Your task to perform on an android device: turn notification dots off Image 0: 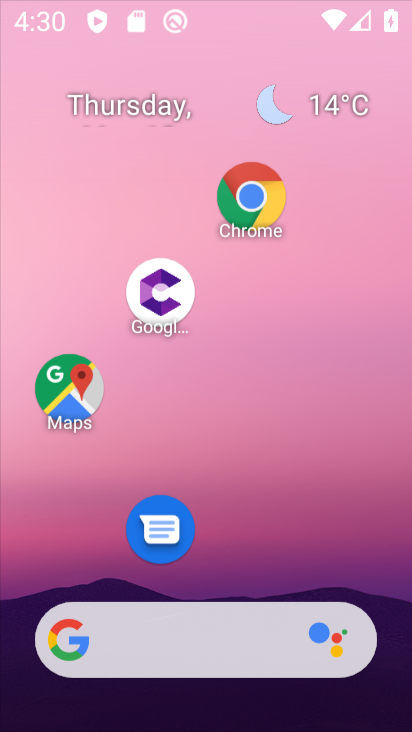
Step 0: press home button
Your task to perform on an android device: turn notification dots off Image 1: 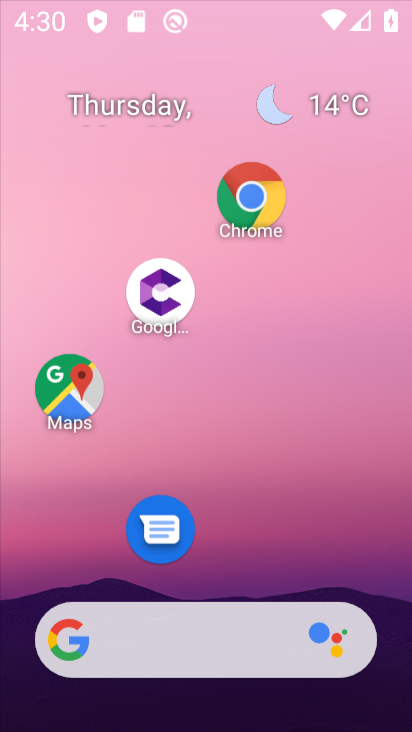
Step 1: drag from (215, 589) to (231, 183)
Your task to perform on an android device: turn notification dots off Image 2: 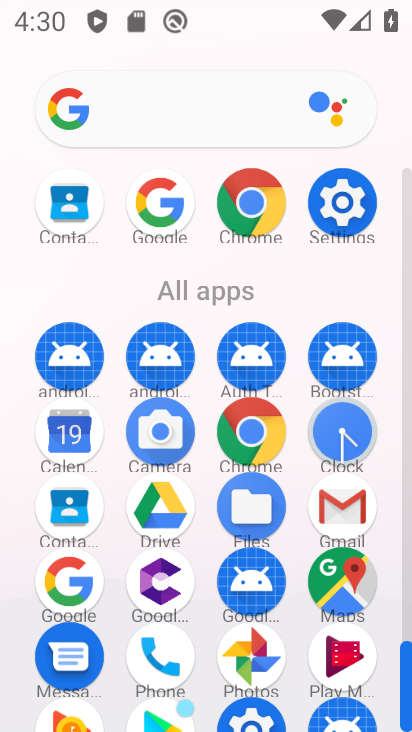
Step 2: click (344, 197)
Your task to perform on an android device: turn notification dots off Image 3: 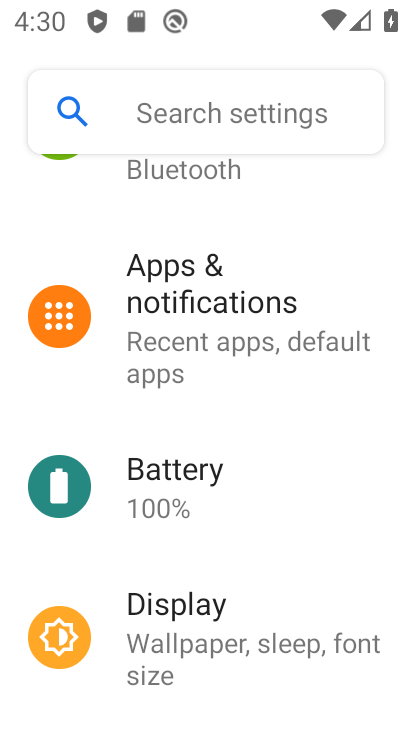
Step 3: click (213, 331)
Your task to perform on an android device: turn notification dots off Image 4: 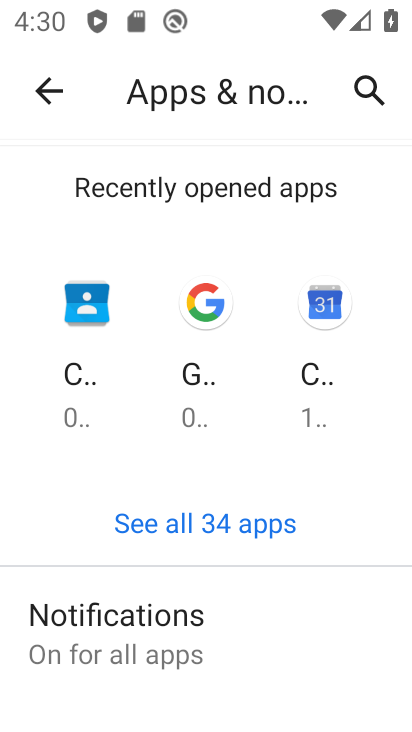
Step 4: click (233, 629)
Your task to perform on an android device: turn notification dots off Image 5: 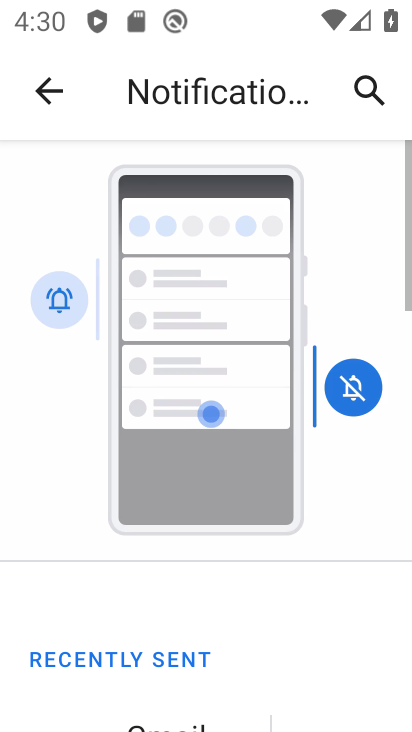
Step 5: drag from (232, 642) to (265, 237)
Your task to perform on an android device: turn notification dots off Image 6: 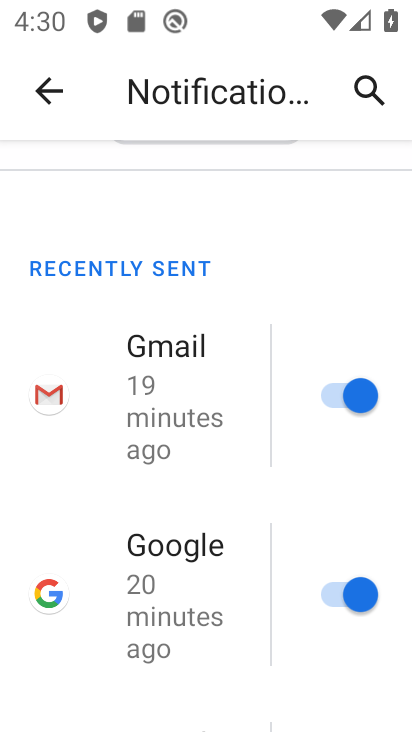
Step 6: drag from (234, 660) to (258, 303)
Your task to perform on an android device: turn notification dots off Image 7: 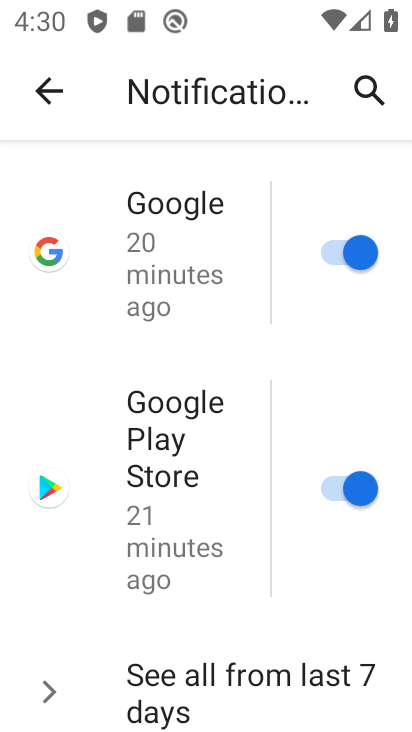
Step 7: drag from (246, 699) to (268, 360)
Your task to perform on an android device: turn notification dots off Image 8: 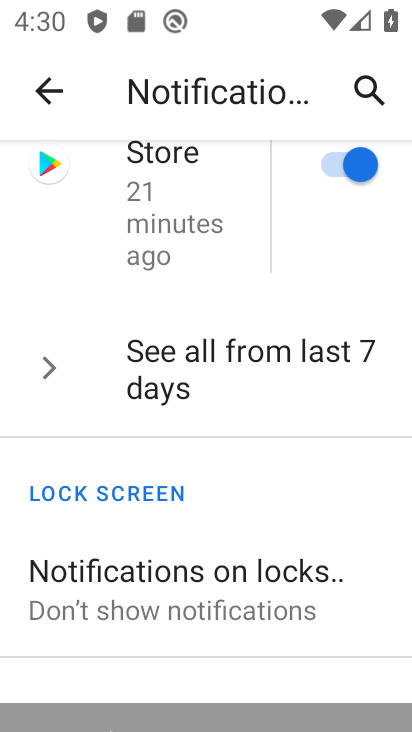
Step 8: drag from (218, 616) to (252, 414)
Your task to perform on an android device: turn notification dots off Image 9: 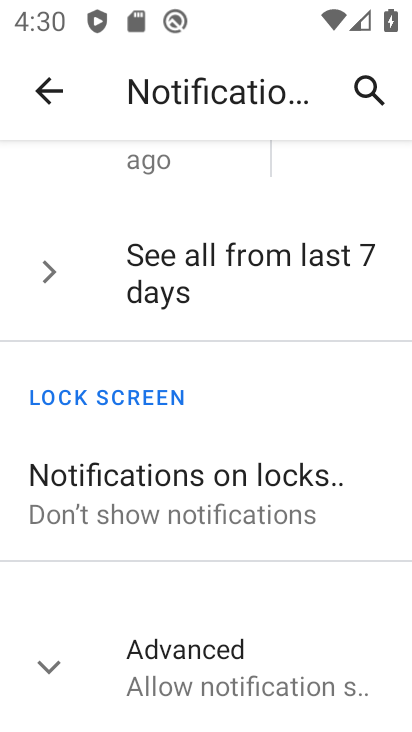
Step 9: click (177, 642)
Your task to perform on an android device: turn notification dots off Image 10: 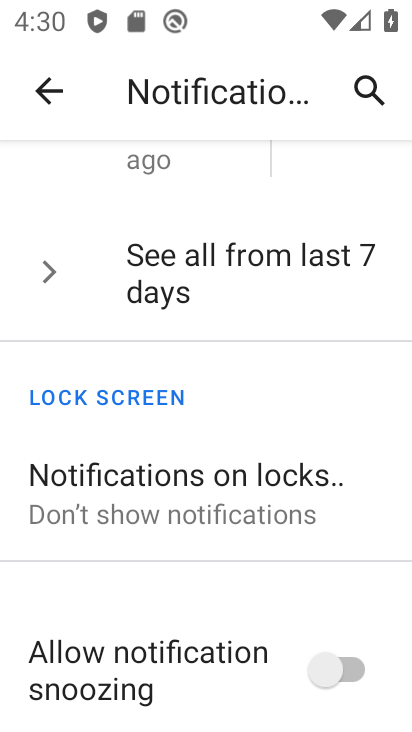
Step 10: drag from (228, 666) to (227, 514)
Your task to perform on an android device: turn notification dots off Image 11: 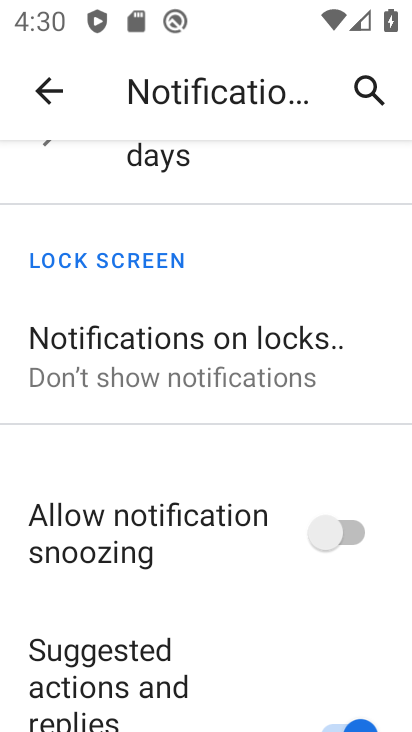
Step 11: drag from (232, 665) to (268, 301)
Your task to perform on an android device: turn notification dots off Image 12: 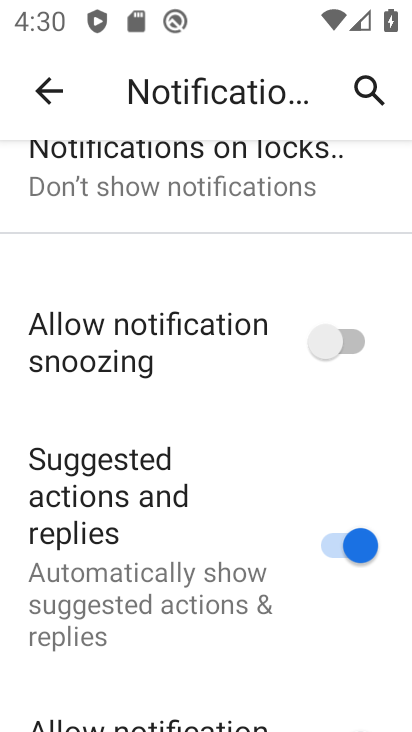
Step 12: drag from (221, 658) to (234, 287)
Your task to perform on an android device: turn notification dots off Image 13: 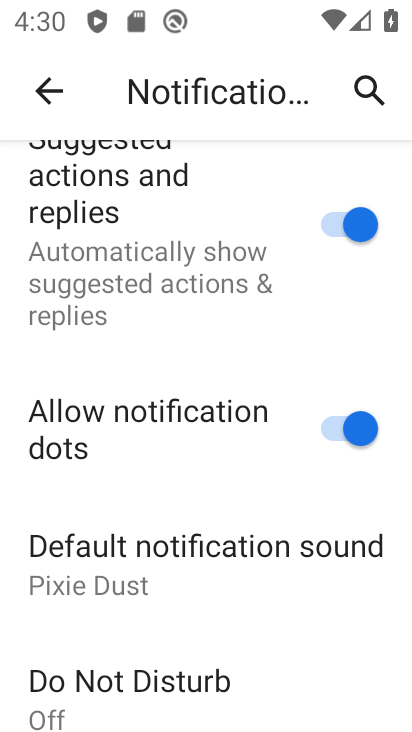
Step 13: click (335, 419)
Your task to perform on an android device: turn notification dots off Image 14: 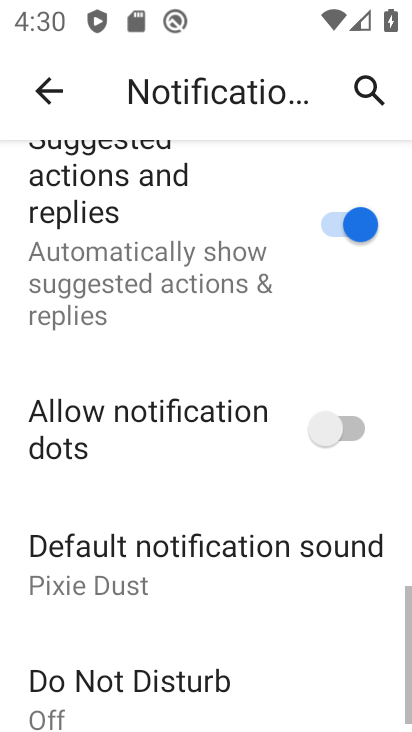
Step 14: task complete